Your task to perform on an android device: Go to eBay Image 0: 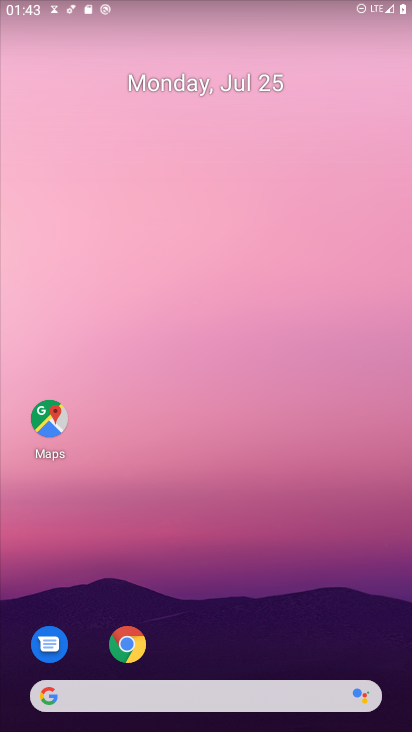
Step 0: drag from (233, 687) to (215, 87)
Your task to perform on an android device: Go to eBay Image 1: 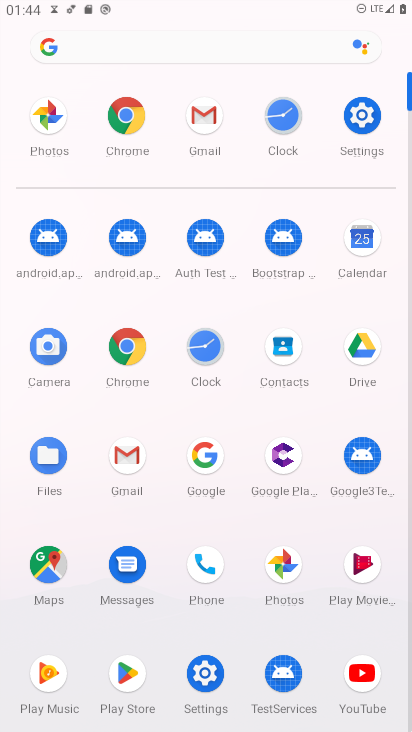
Step 1: click (131, 111)
Your task to perform on an android device: Go to eBay Image 2: 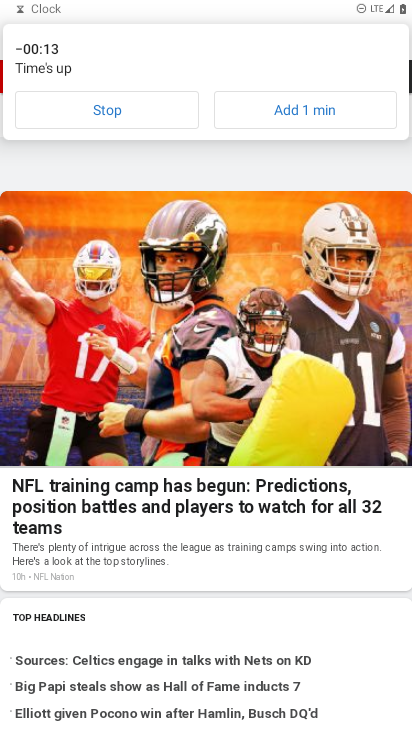
Step 2: click (133, 116)
Your task to perform on an android device: Go to eBay Image 3: 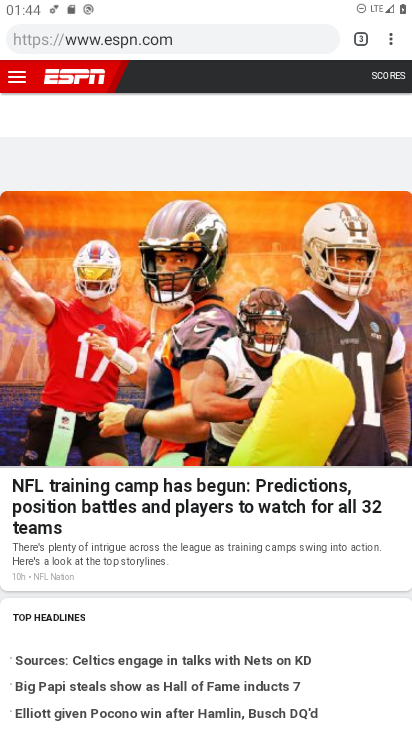
Step 3: click (391, 39)
Your task to perform on an android device: Go to eBay Image 4: 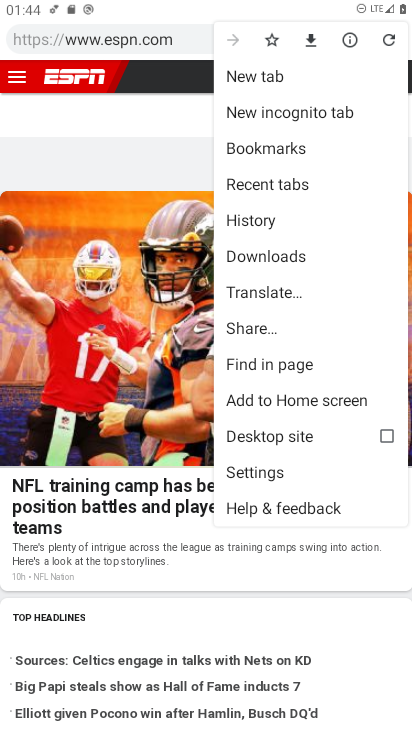
Step 4: click (256, 82)
Your task to perform on an android device: Go to eBay Image 5: 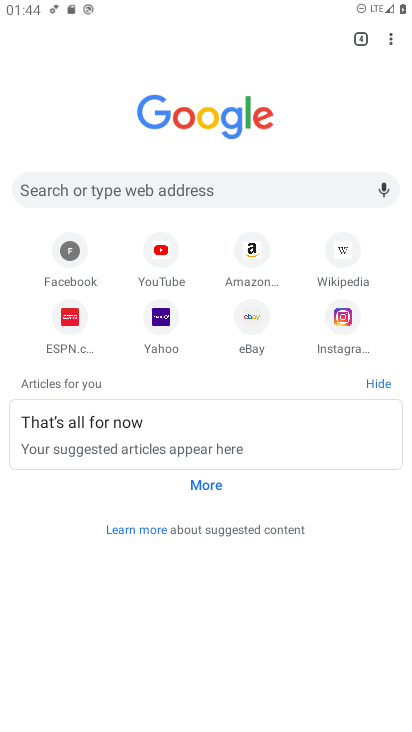
Step 5: click (255, 323)
Your task to perform on an android device: Go to eBay Image 6: 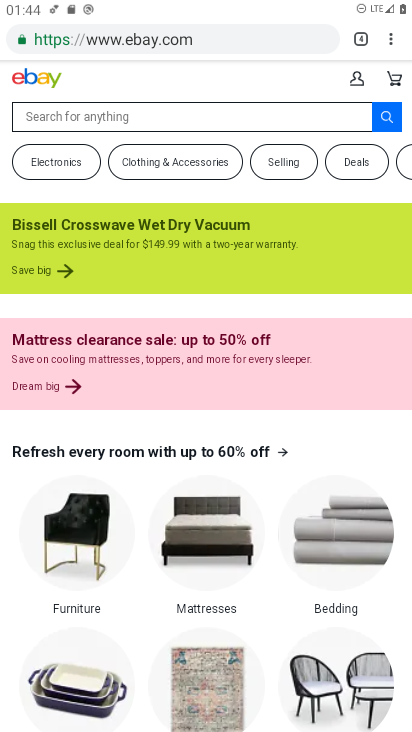
Step 6: task complete